Your task to perform on an android device: Open the Play Movies app and select the watchlist tab. Image 0: 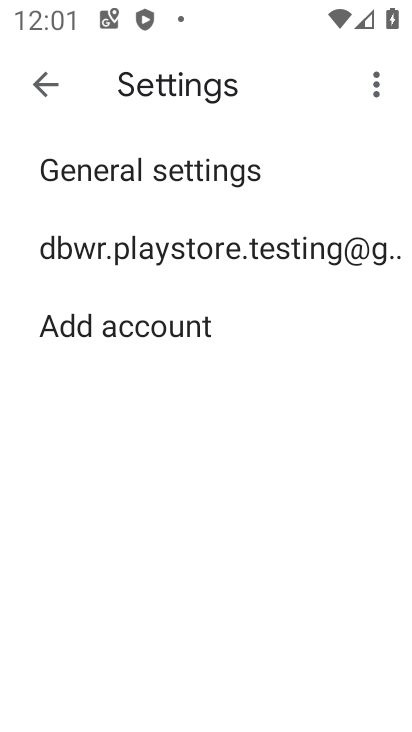
Step 0: press home button
Your task to perform on an android device: Open the Play Movies app and select the watchlist tab. Image 1: 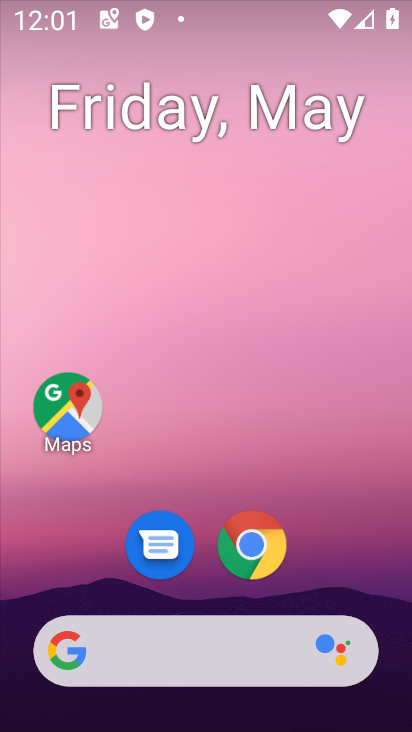
Step 1: drag from (328, 538) to (317, 284)
Your task to perform on an android device: Open the Play Movies app and select the watchlist tab. Image 2: 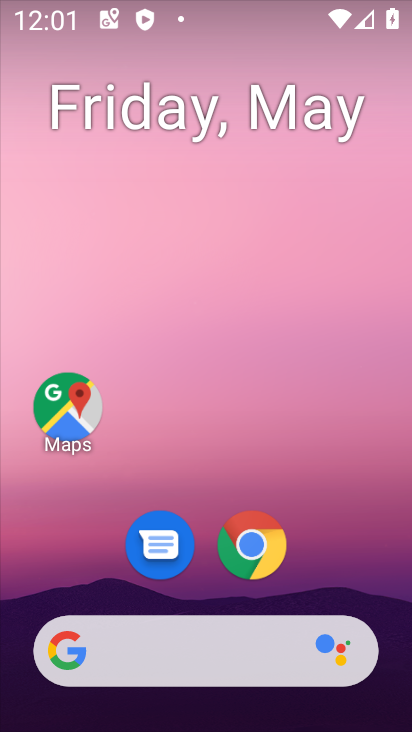
Step 2: drag from (285, 585) to (255, 124)
Your task to perform on an android device: Open the Play Movies app and select the watchlist tab. Image 3: 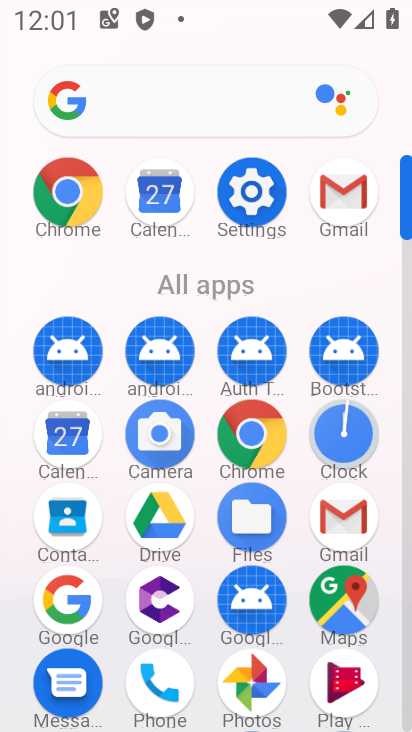
Step 3: drag from (287, 628) to (275, 366)
Your task to perform on an android device: Open the Play Movies app and select the watchlist tab. Image 4: 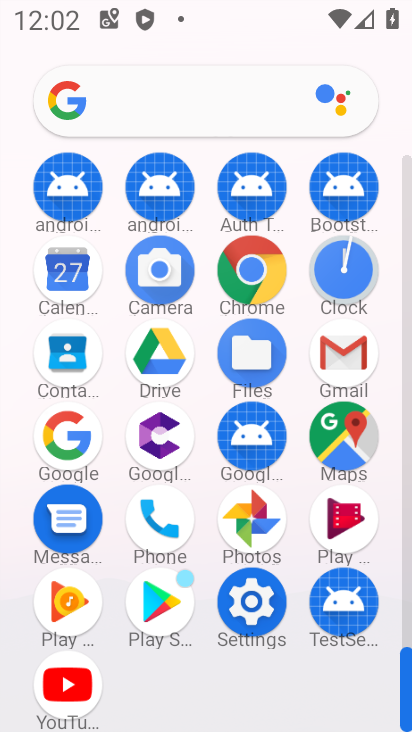
Step 4: click (342, 518)
Your task to perform on an android device: Open the Play Movies app and select the watchlist tab. Image 5: 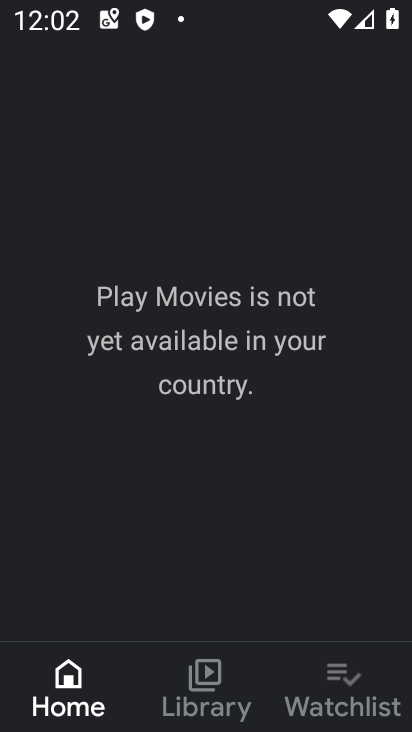
Step 5: click (337, 693)
Your task to perform on an android device: Open the Play Movies app and select the watchlist tab. Image 6: 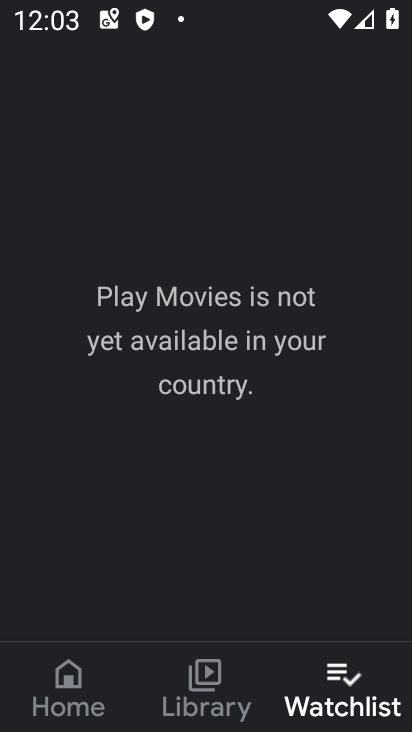
Step 6: task complete